Your task to perform on an android device: Open Chrome and go to settings Image 0: 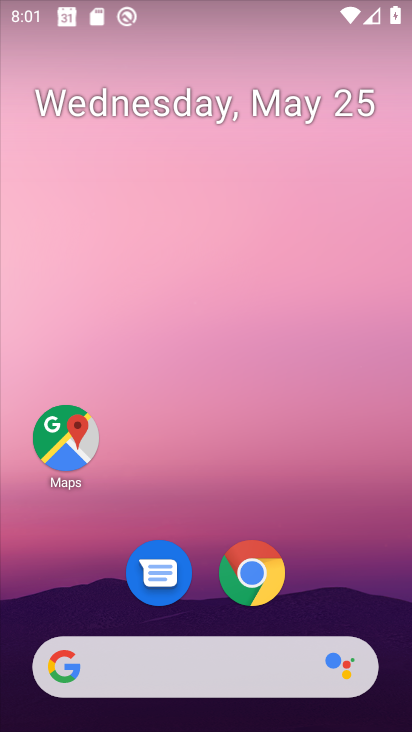
Step 0: click (255, 578)
Your task to perform on an android device: Open Chrome and go to settings Image 1: 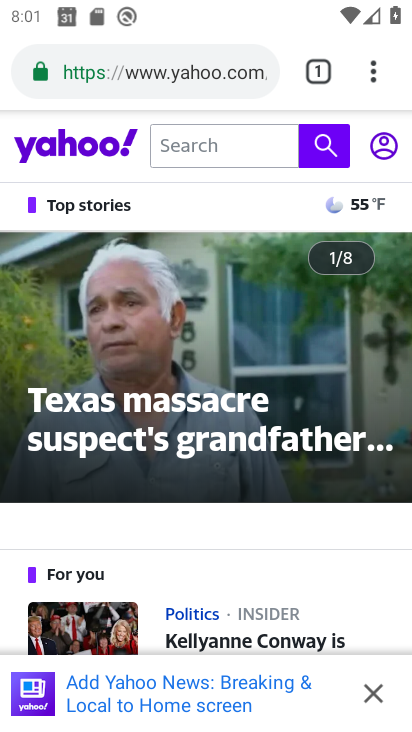
Step 1: click (368, 73)
Your task to perform on an android device: Open Chrome and go to settings Image 2: 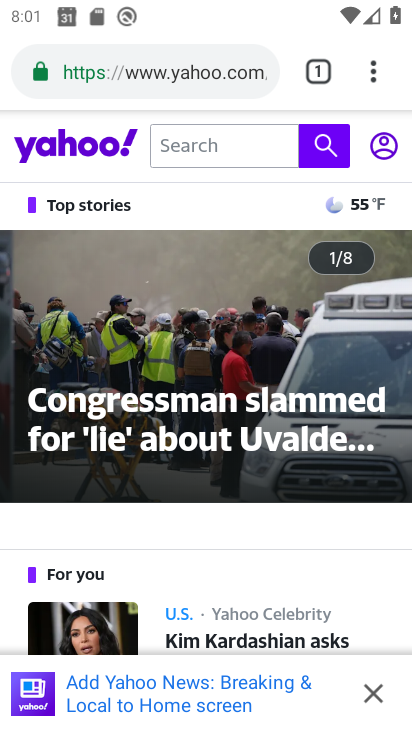
Step 2: click (373, 68)
Your task to perform on an android device: Open Chrome and go to settings Image 3: 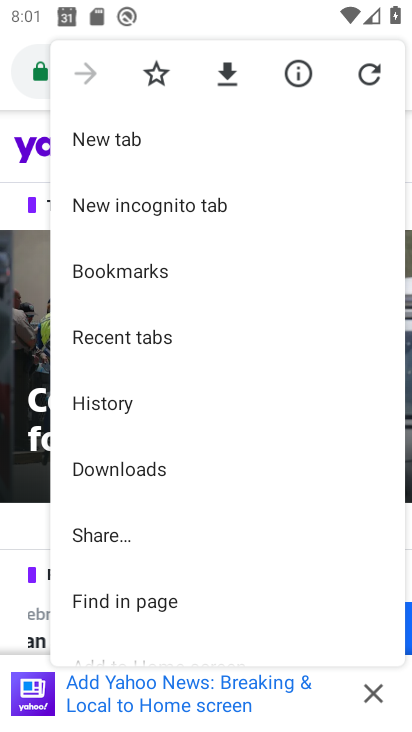
Step 3: drag from (251, 592) to (258, 326)
Your task to perform on an android device: Open Chrome and go to settings Image 4: 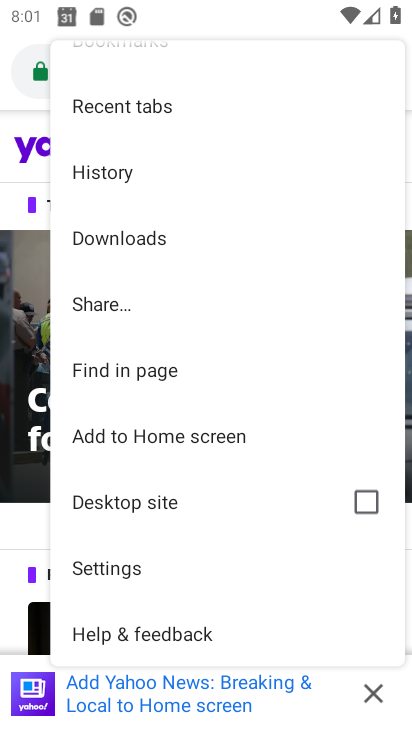
Step 4: click (126, 564)
Your task to perform on an android device: Open Chrome and go to settings Image 5: 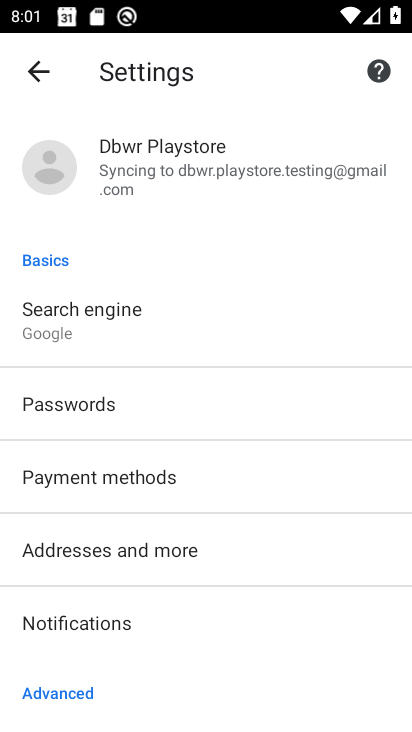
Step 5: task complete